Your task to perform on an android device: check battery use Image 0: 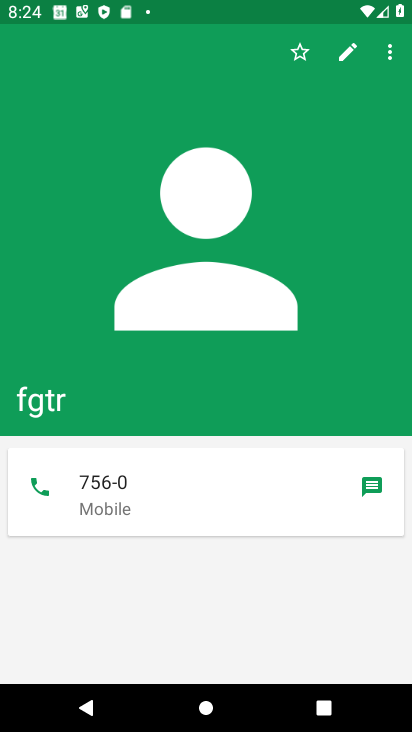
Step 0: press home button
Your task to perform on an android device: check battery use Image 1: 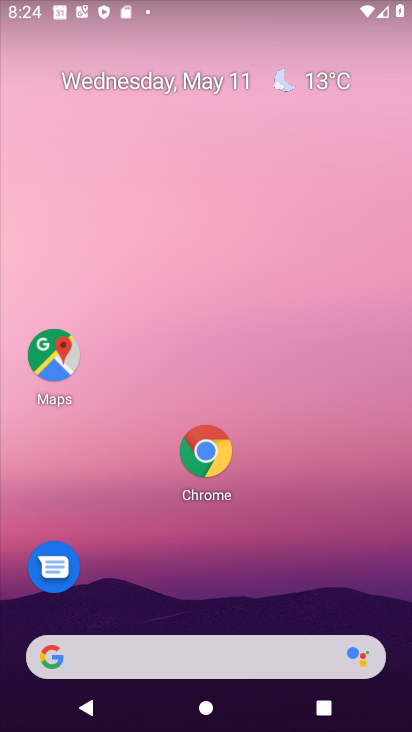
Step 1: drag from (161, 654) to (369, 156)
Your task to perform on an android device: check battery use Image 2: 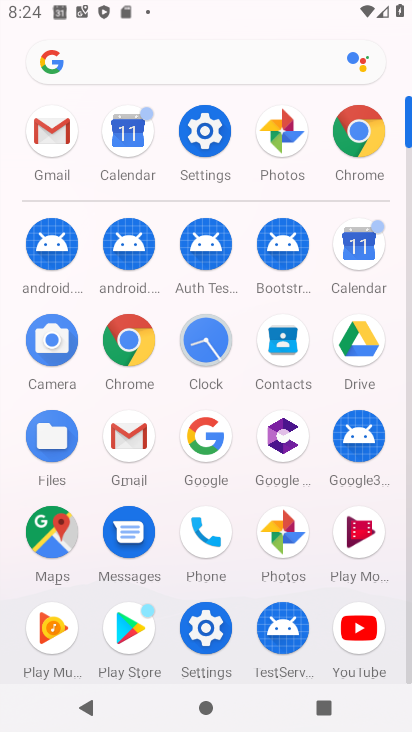
Step 2: click (202, 142)
Your task to perform on an android device: check battery use Image 3: 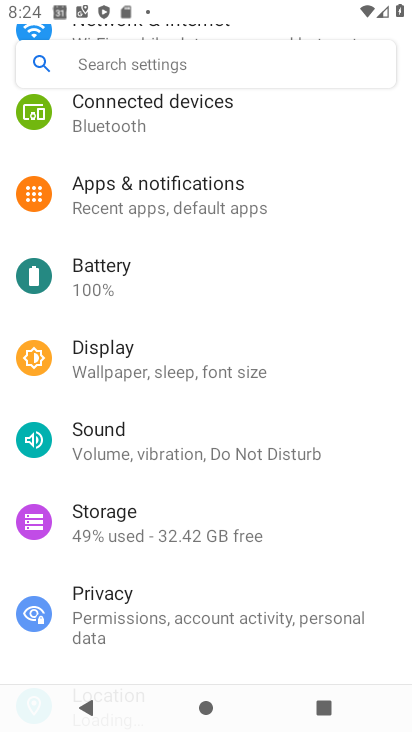
Step 3: click (107, 268)
Your task to perform on an android device: check battery use Image 4: 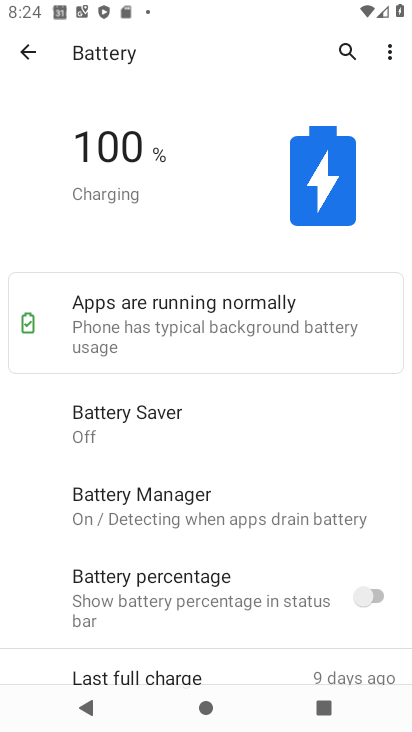
Step 4: click (391, 53)
Your task to perform on an android device: check battery use Image 5: 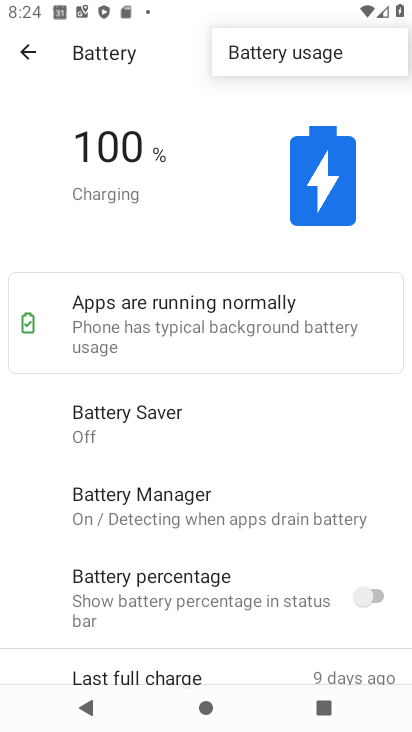
Step 5: click (320, 58)
Your task to perform on an android device: check battery use Image 6: 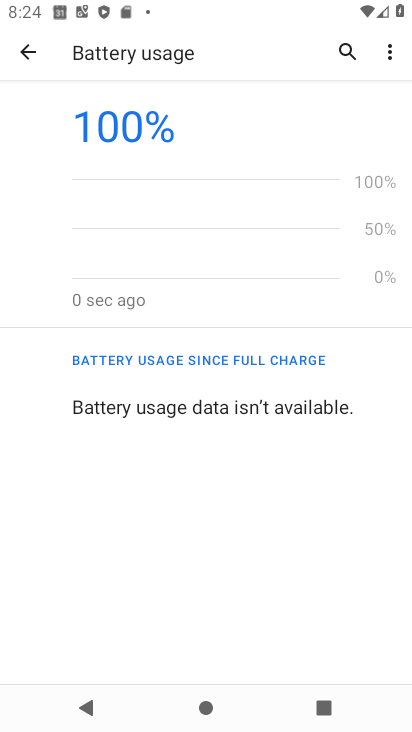
Step 6: task complete